Your task to perform on an android device: open app "Walmart Shopping & Grocery" (install if not already installed) and go to login screen Image 0: 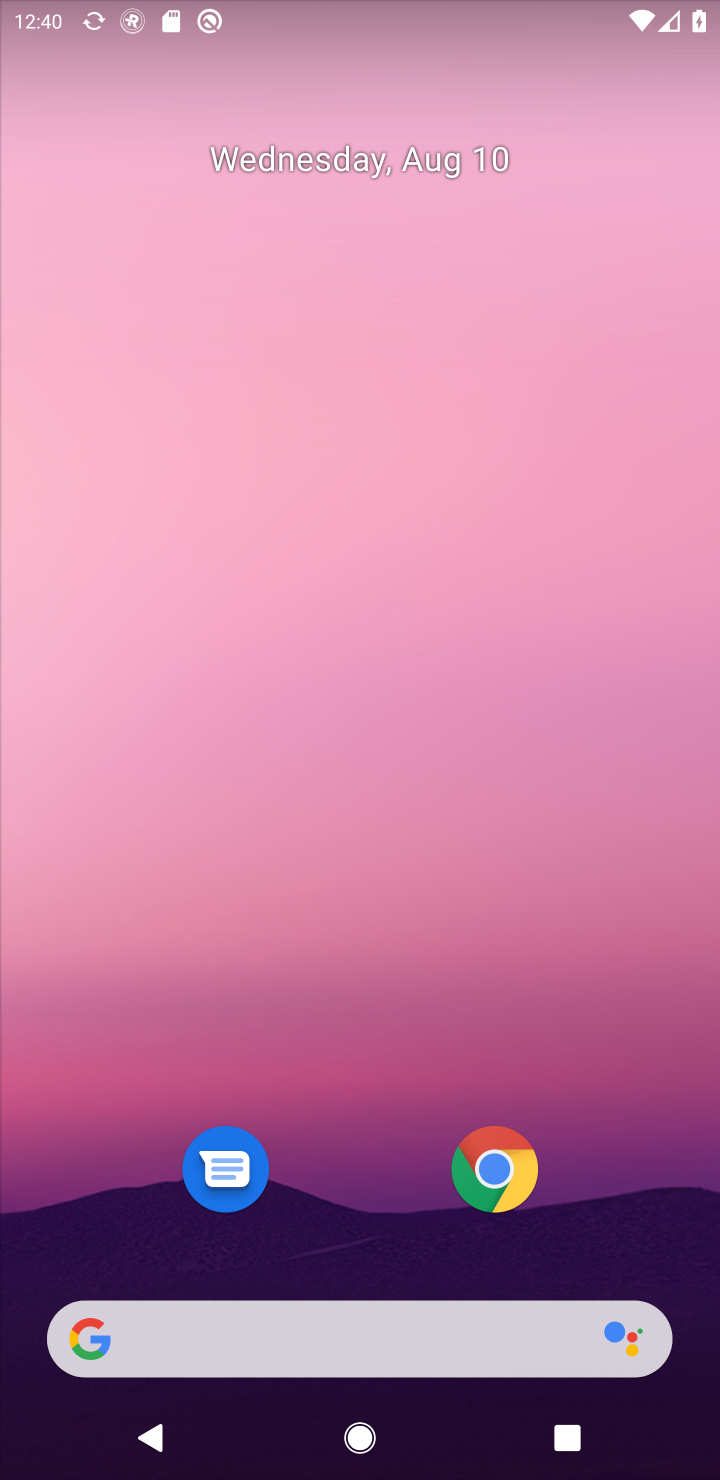
Step 0: press home button
Your task to perform on an android device: open app "Walmart Shopping & Grocery" (install if not already installed) and go to login screen Image 1: 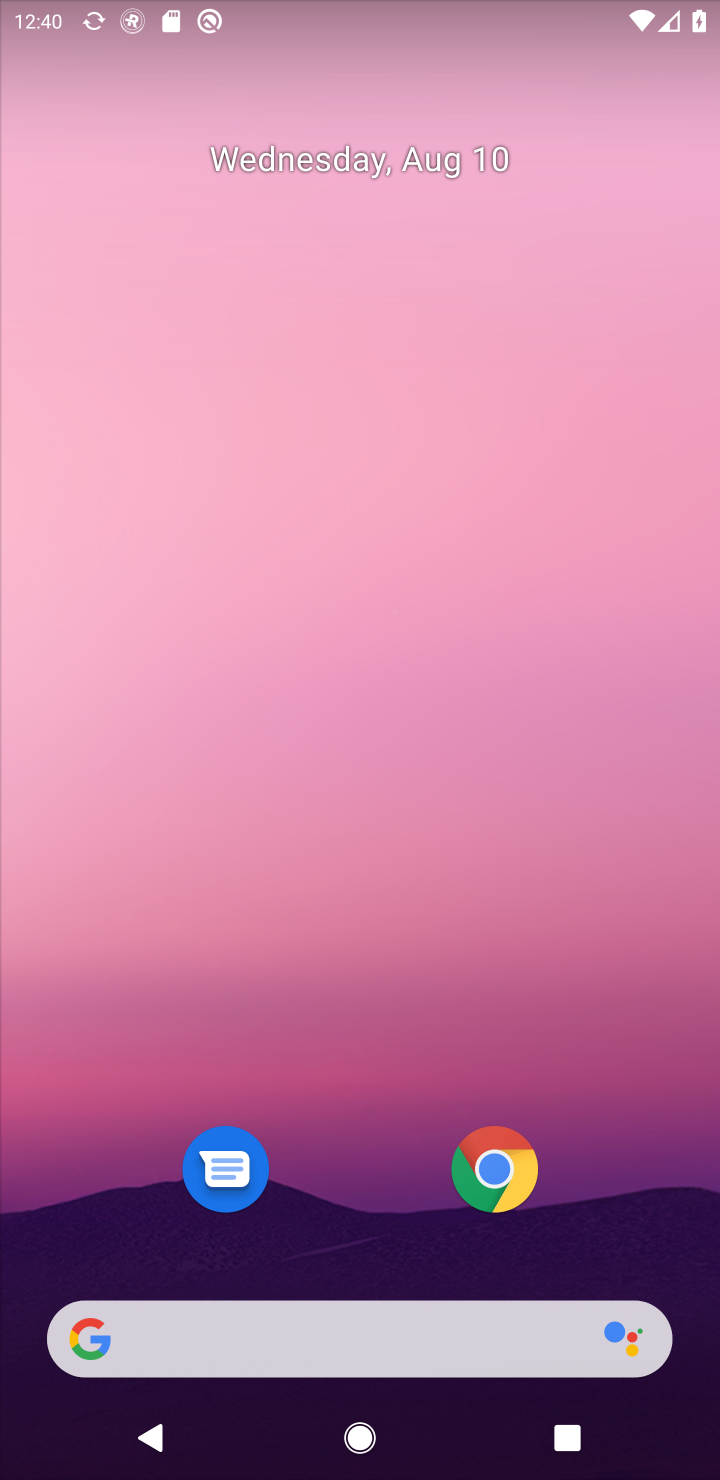
Step 1: drag from (609, 1156) to (655, 78)
Your task to perform on an android device: open app "Walmart Shopping & Grocery" (install if not already installed) and go to login screen Image 2: 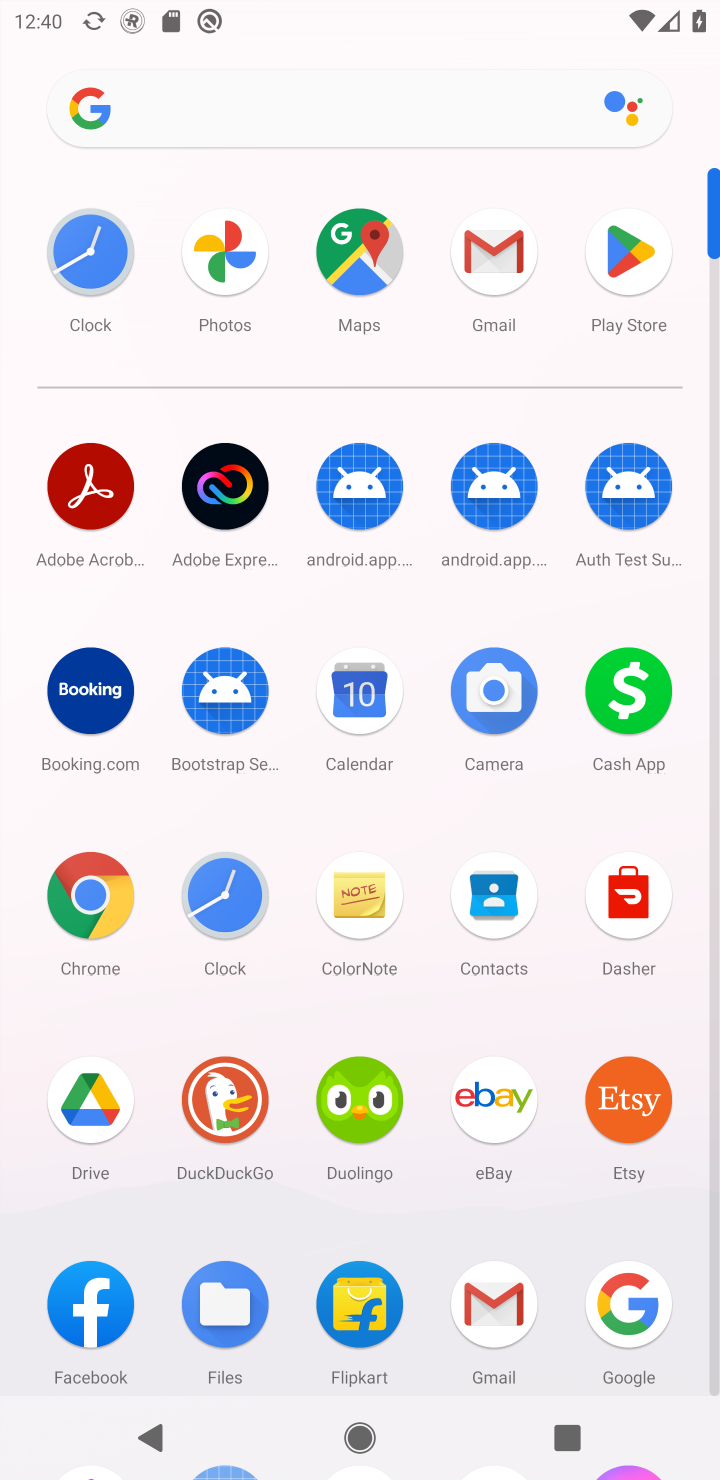
Step 2: click (636, 265)
Your task to perform on an android device: open app "Walmart Shopping & Grocery" (install if not already installed) and go to login screen Image 3: 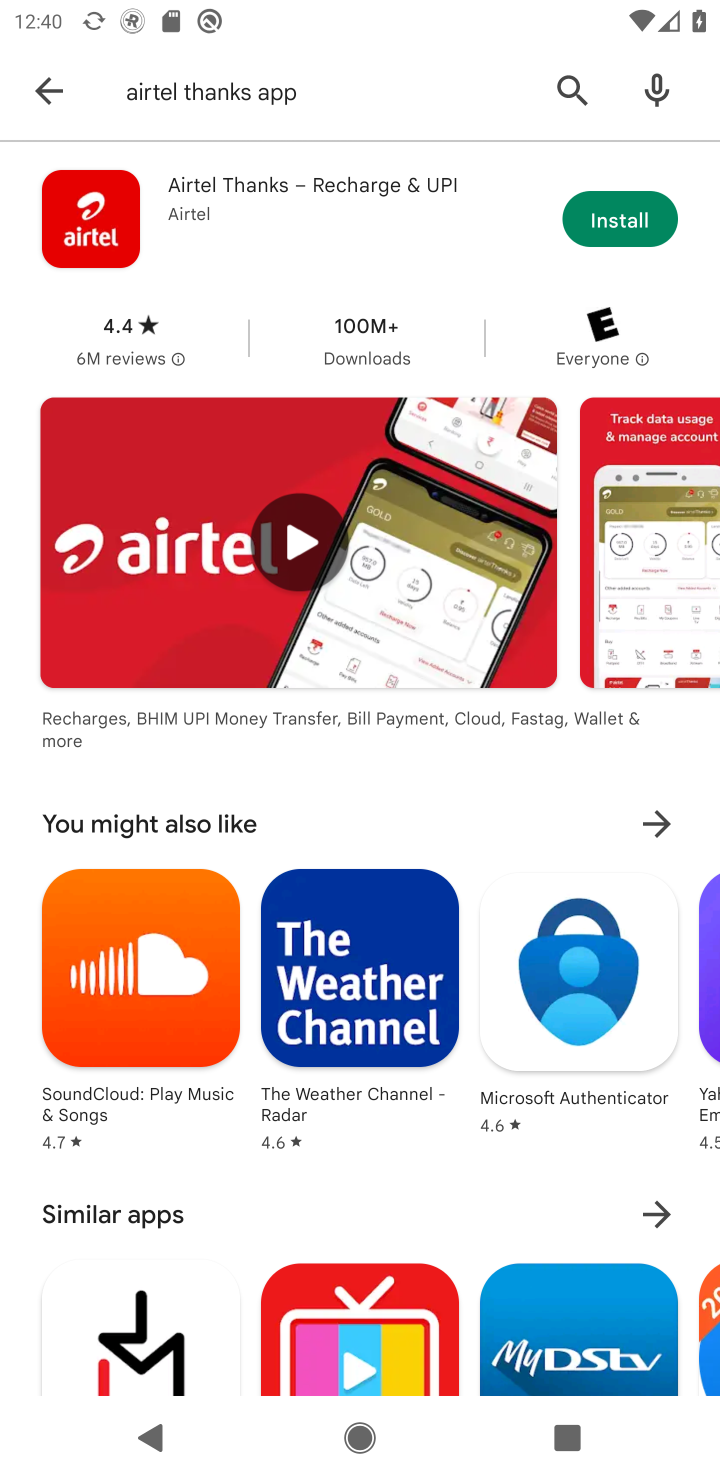
Step 3: click (567, 80)
Your task to perform on an android device: open app "Walmart Shopping & Grocery" (install if not already installed) and go to login screen Image 4: 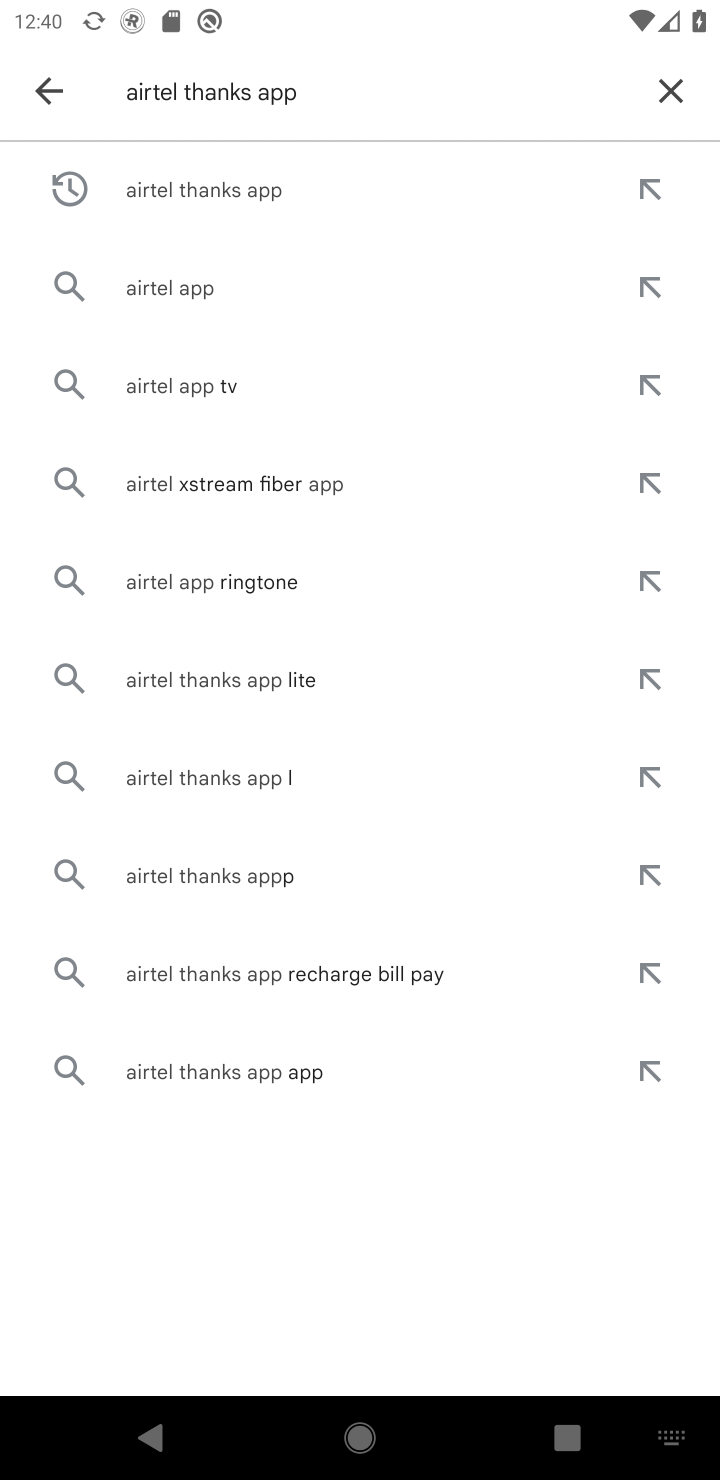
Step 4: click (666, 91)
Your task to perform on an android device: open app "Walmart Shopping & Grocery" (install if not already installed) and go to login screen Image 5: 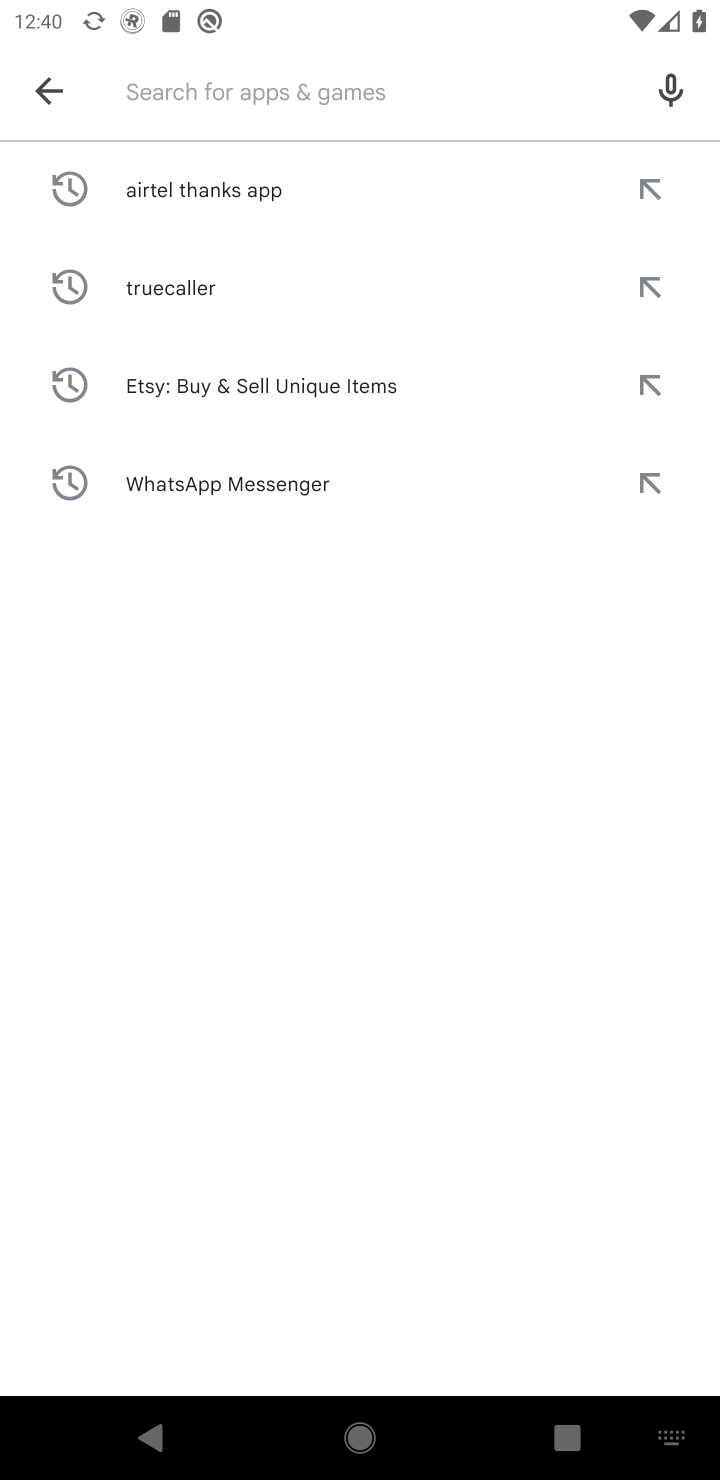
Step 5: type "Walmart Shopping & Grocery"
Your task to perform on an android device: open app "Walmart Shopping & Grocery" (install if not already installed) and go to login screen Image 6: 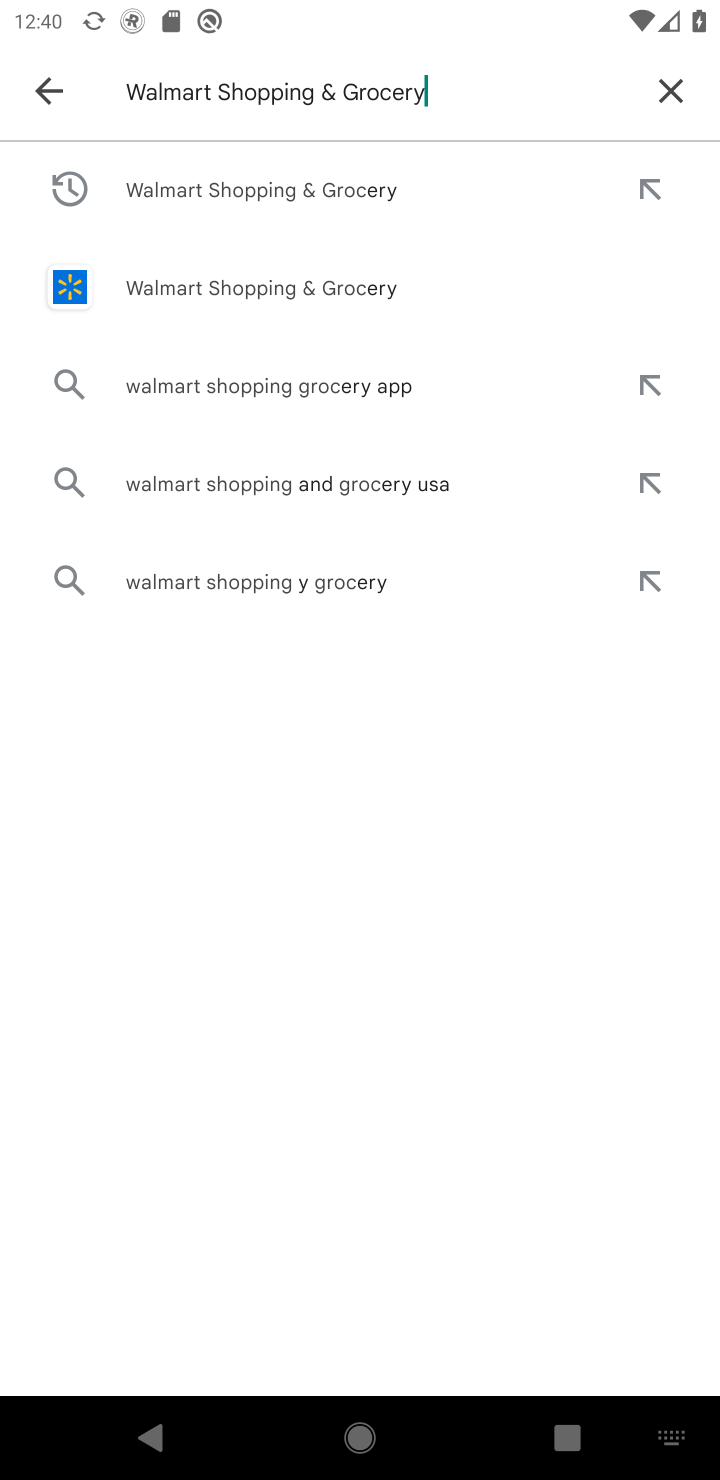
Step 6: press enter
Your task to perform on an android device: open app "Walmart Shopping & Grocery" (install if not already installed) and go to login screen Image 7: 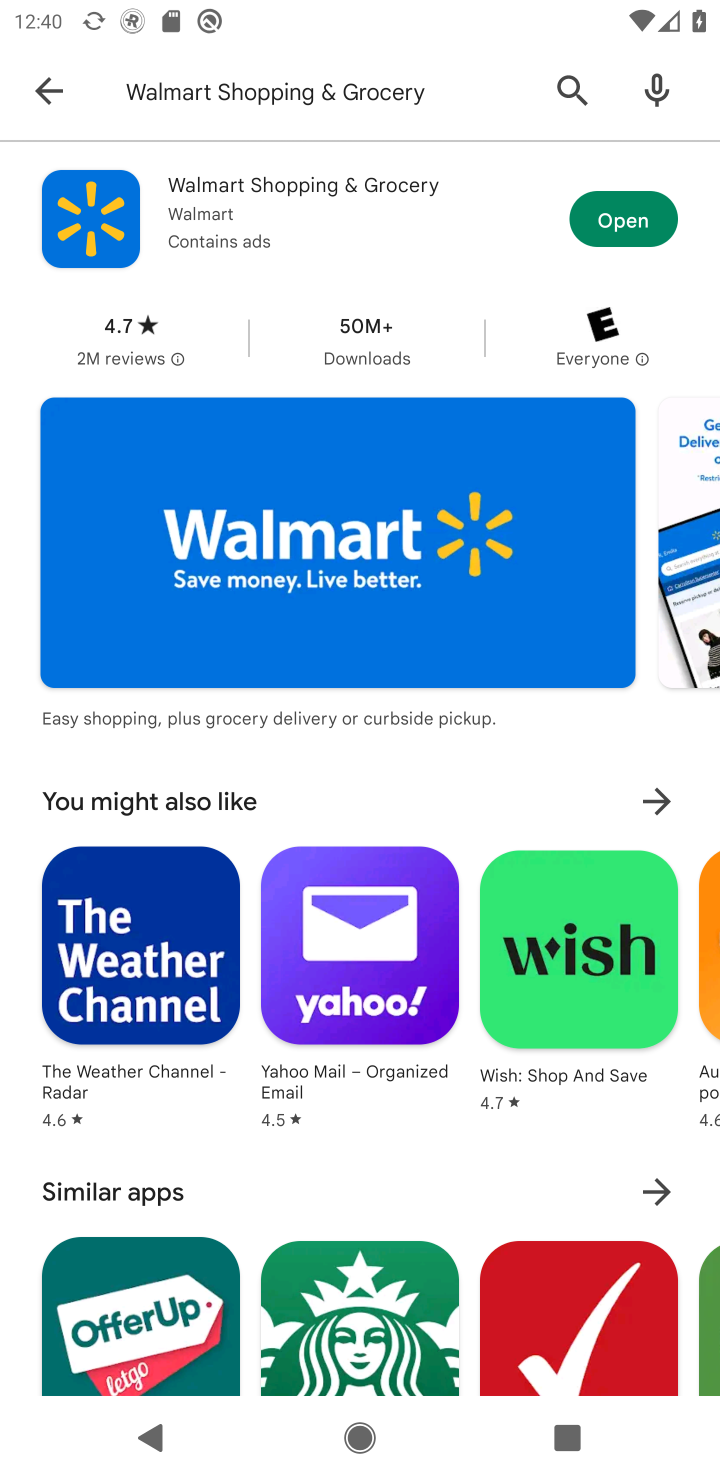
Step 7: click (650, 221)
Your task to perform on an android device: open app "Walmart Shopping & Grocery" (install if not already installed) and go to login screen Image 8: 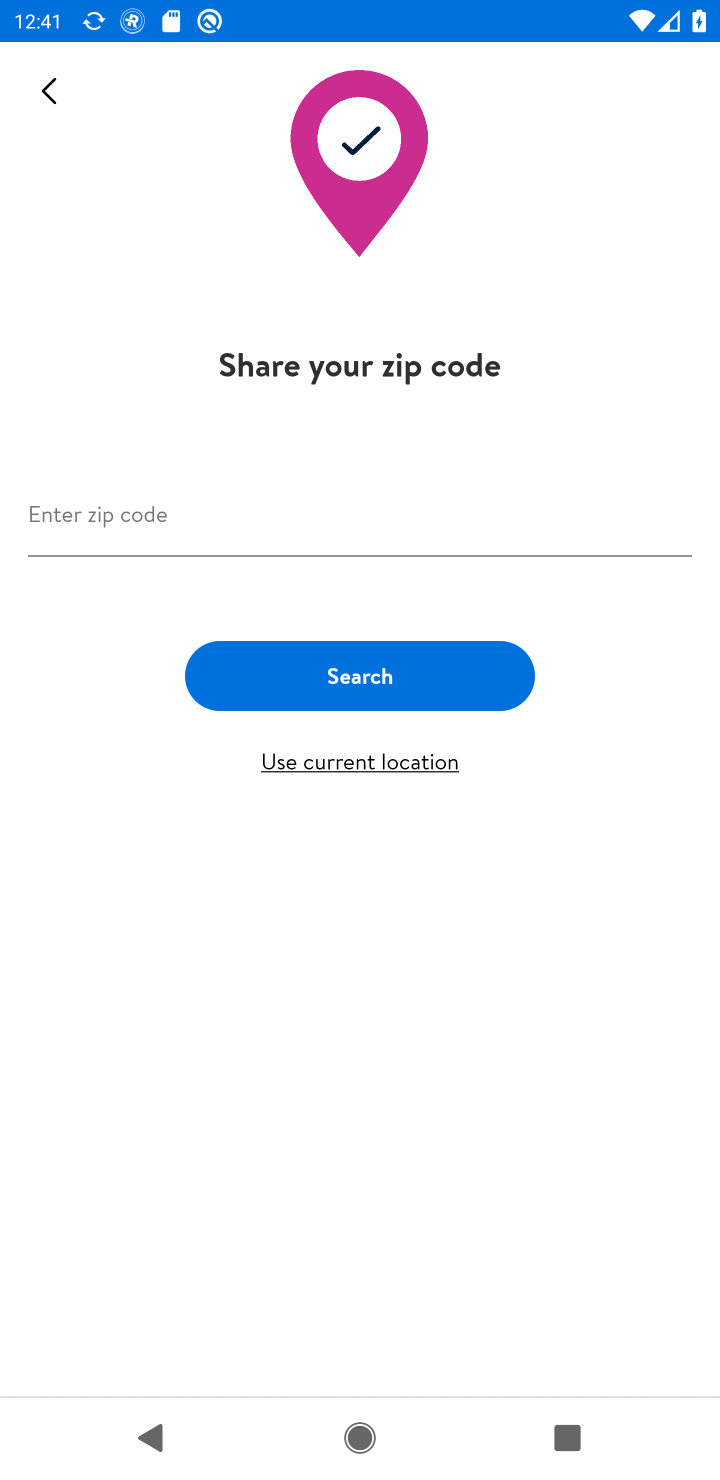
Step 8: press back button
Your task to perform on an android device: open app "Walmart Shopping & Grocery" (install if not already installed) and go to login screen Image 9: 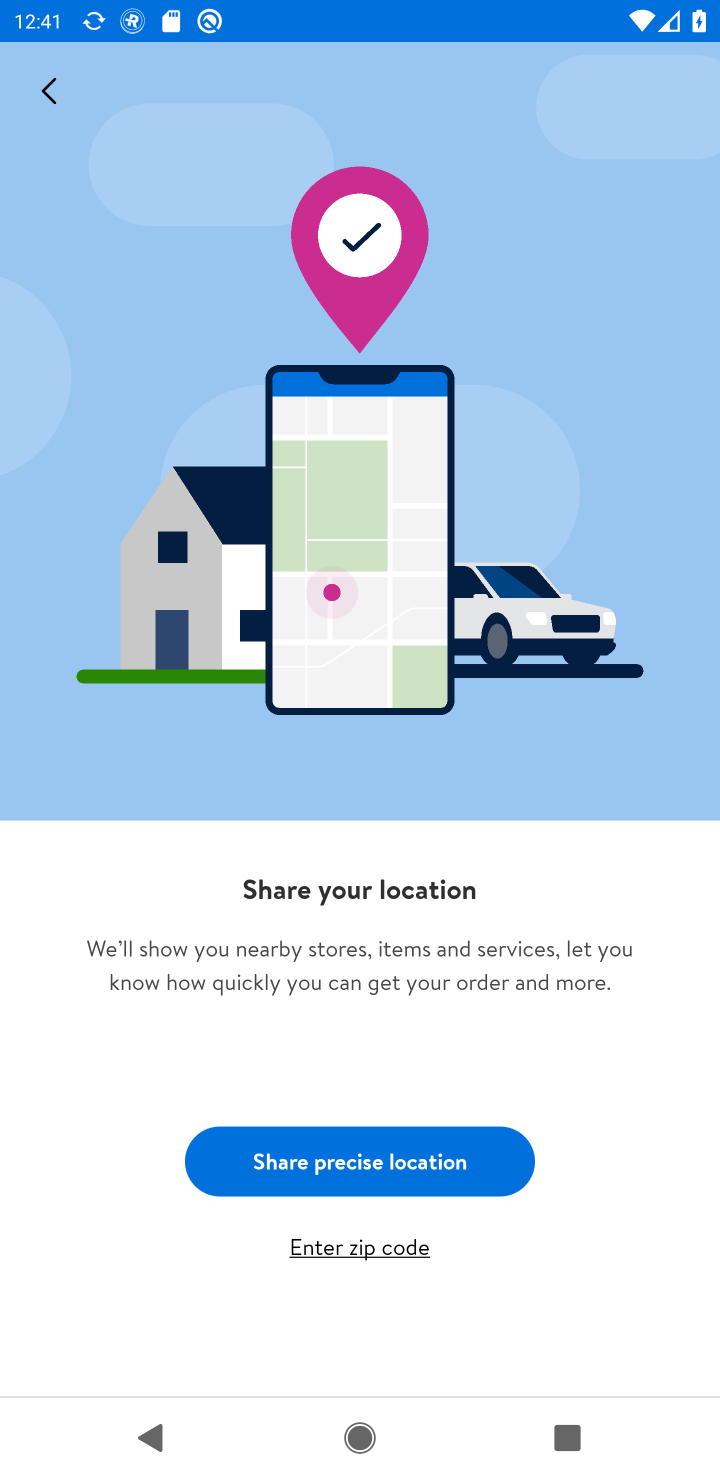
Step 9: press back button
Your task to perform on an android device: open app "Walmart Shopping & Grocery" (install if not already installed) and go to login screen Image 10: 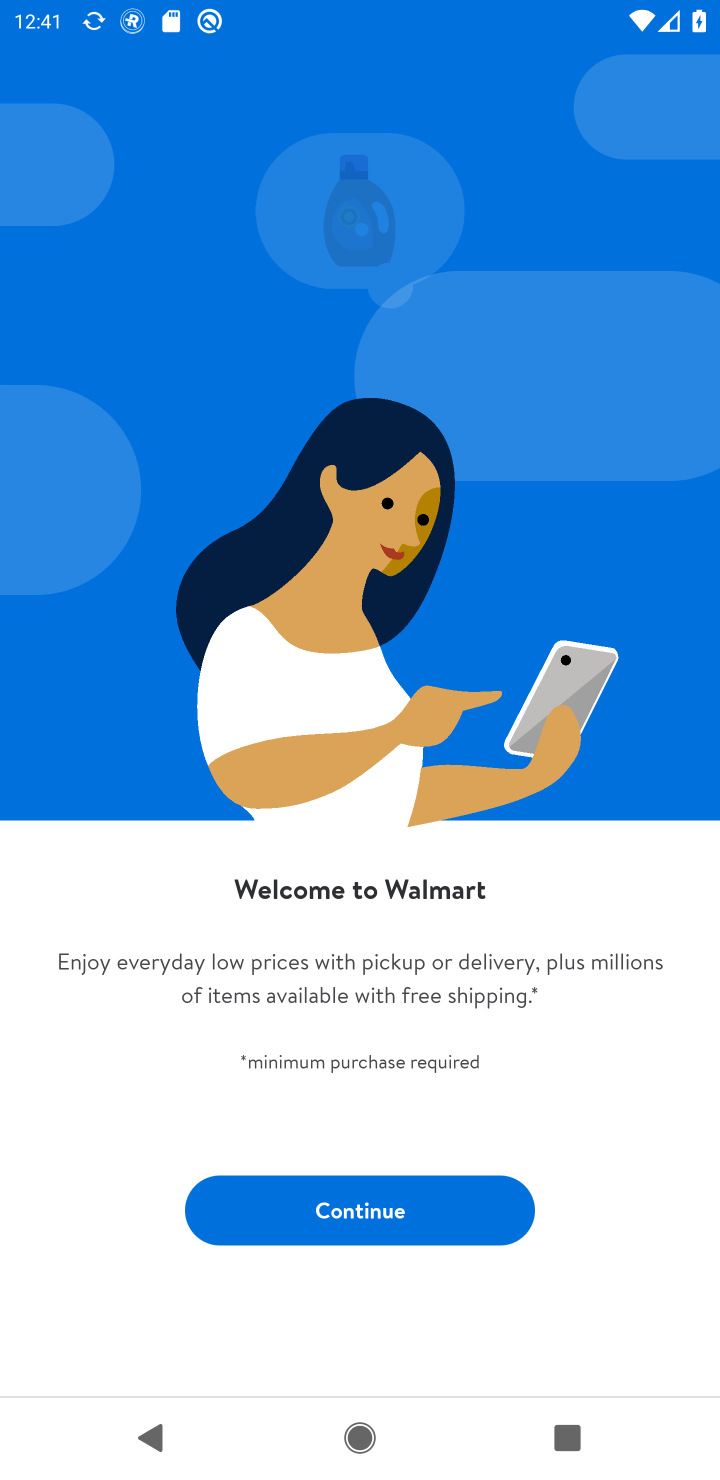
Step 10: click (402, 1224)
Your task to perform on an android device: open app "Walmart Shopping & Grocery" (install if not already installed) and go to login screen Image 11: 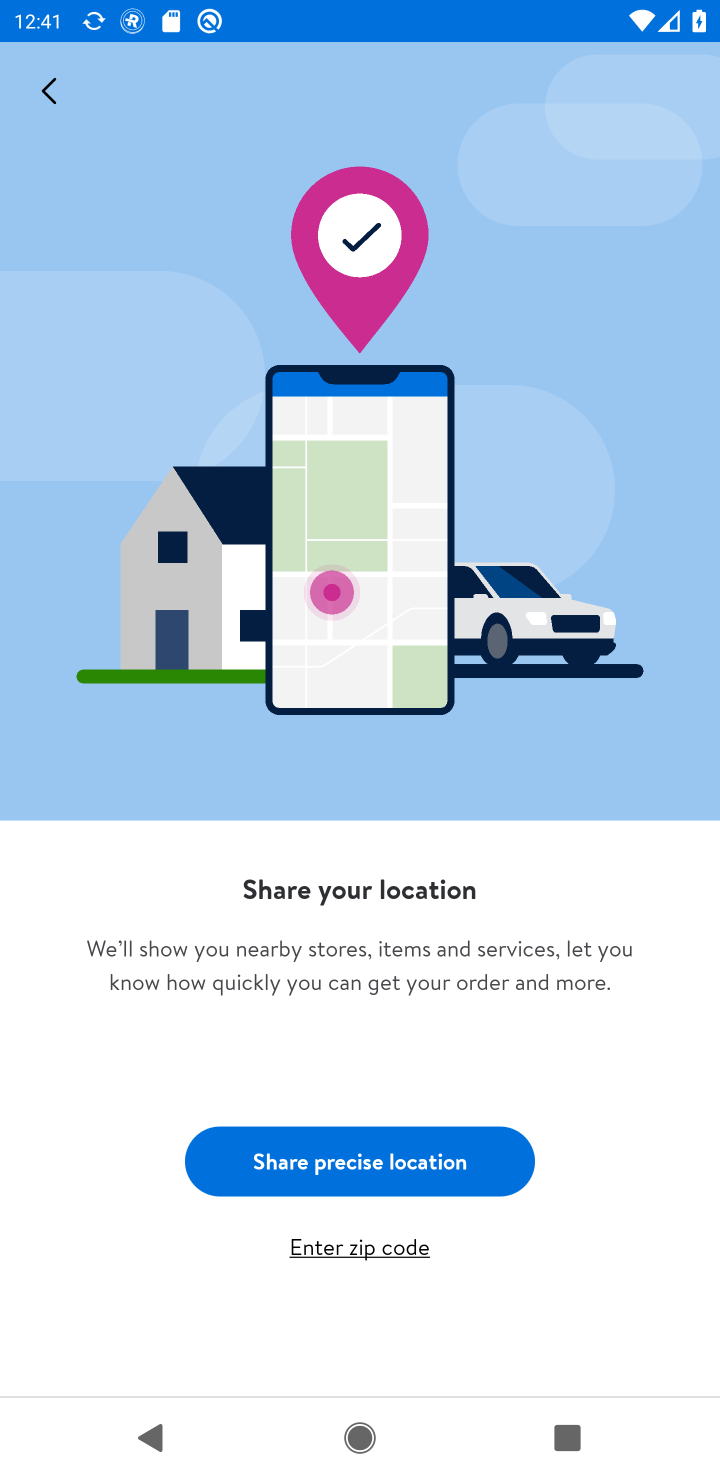
Step 11: click (368, 1154)
Your task to perform on an android device: open app "Walmart Shopping & Grocery" (install if not already installed) and go to login screen Image 12: 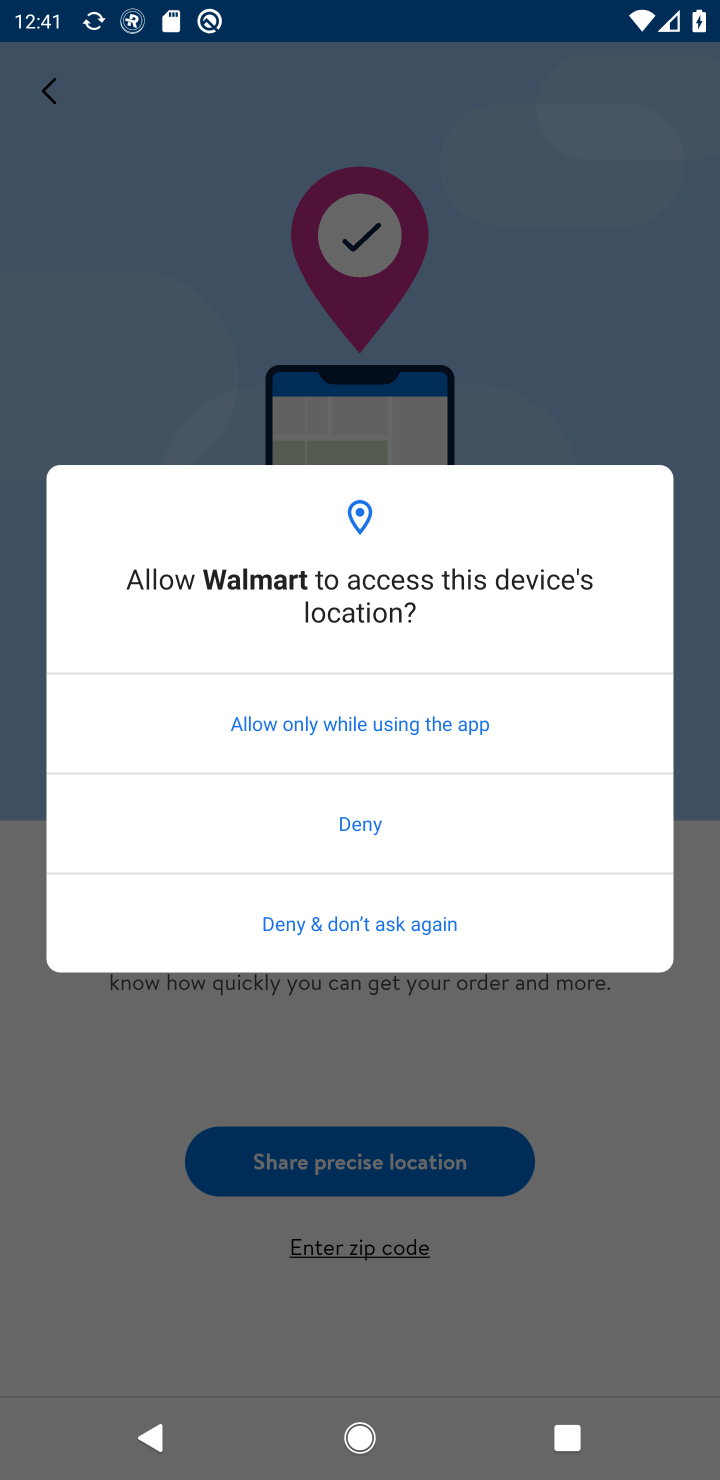
Step 12: click (458, 720)
Your task to perform on an android device: open app "Walmart Shopping & Grocery" (install if not already installed) and go to login screen Image 13: 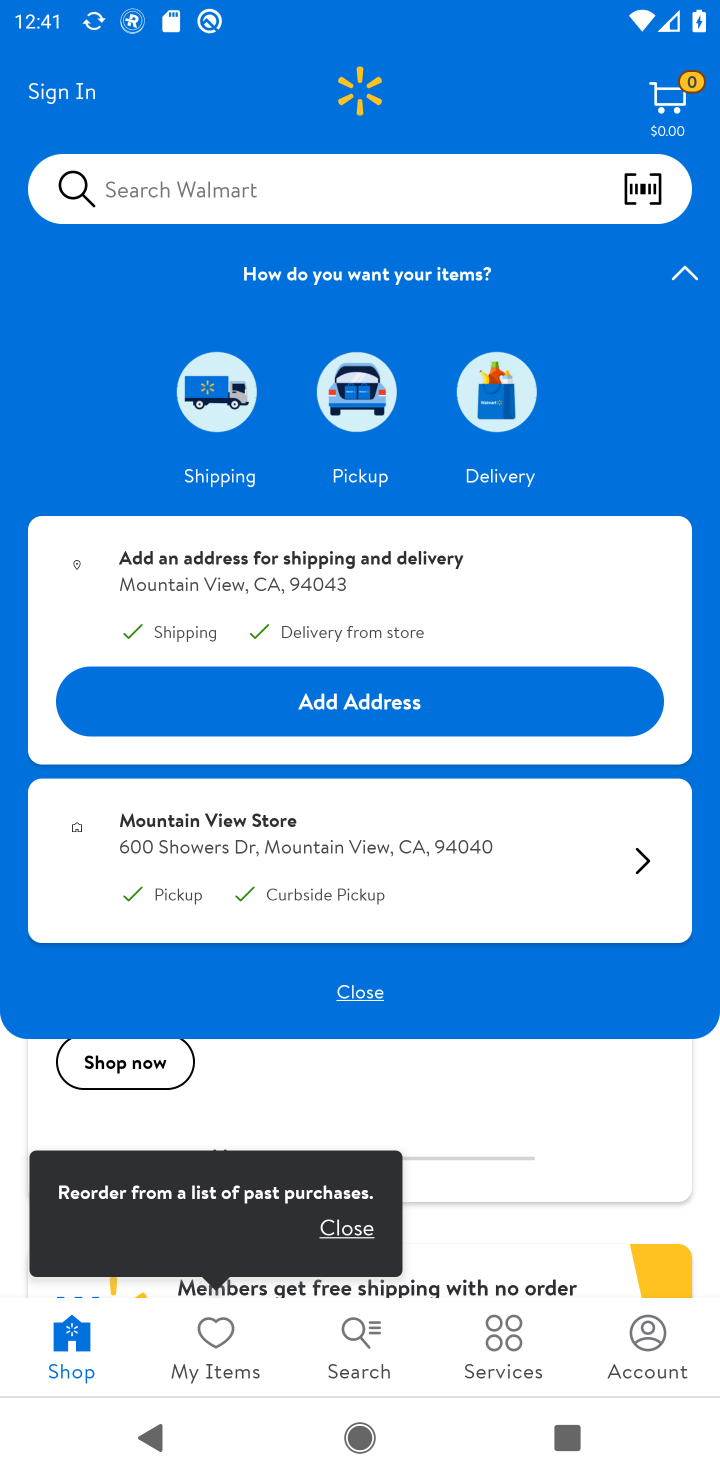
Step 13: click (60, 92)
Your task to perform on an android device: open app "Walmart Shopping & Grocery" (install if not already installed) and go to login screen Image 14: 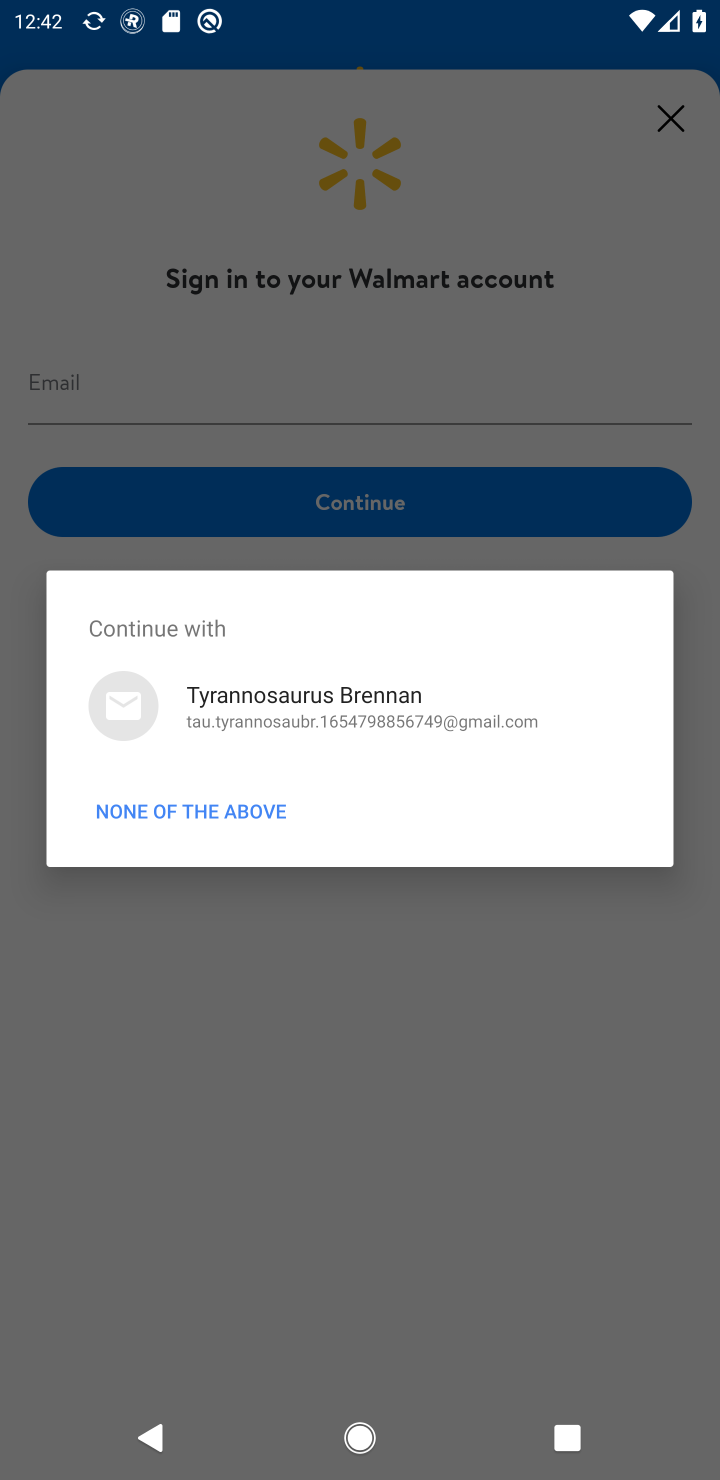
Step 14: task complete